Your task to perform on an android device: Add usb-a to the cart on newegg.com, then select checkout. Image 0: 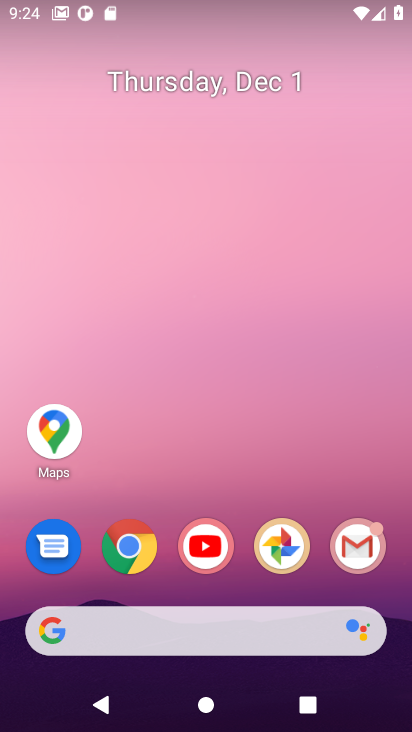
Step 0: click (128, 555)
Your task to perform on an android device: Add usb-a to the cart on newegg.com, then select checkout. Image 1: 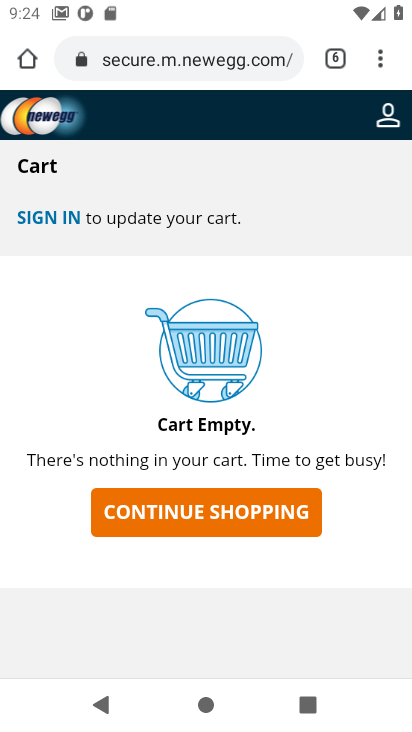
Step 1: click (193, 503)
Your task to perform on an android device: Add usb-a to the cart on newegg.com, then select checkout. Image 2: 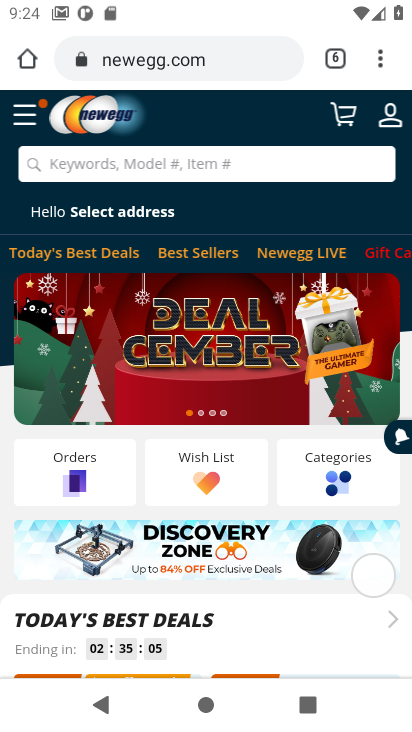
Step 2: click (121, 165)
Your task to perform on an android device: Add usb-a to the cart on newegg.com, then select checkout. Image 3: 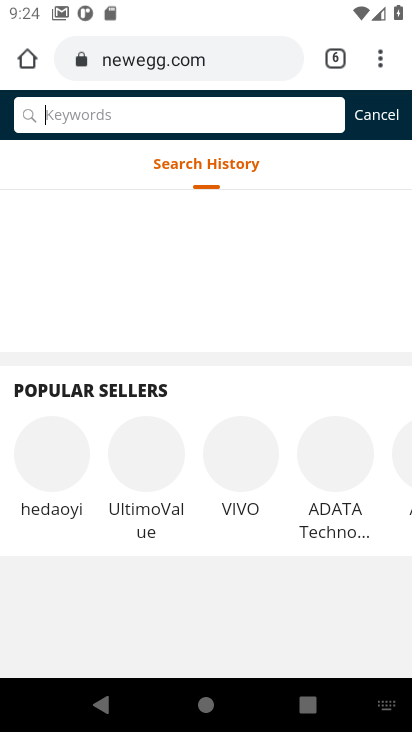
Step 3: type "usb-a "
Your task to perform on an android device: Add usb-a to the cart on newegg.com, then select checkout. Image 4: 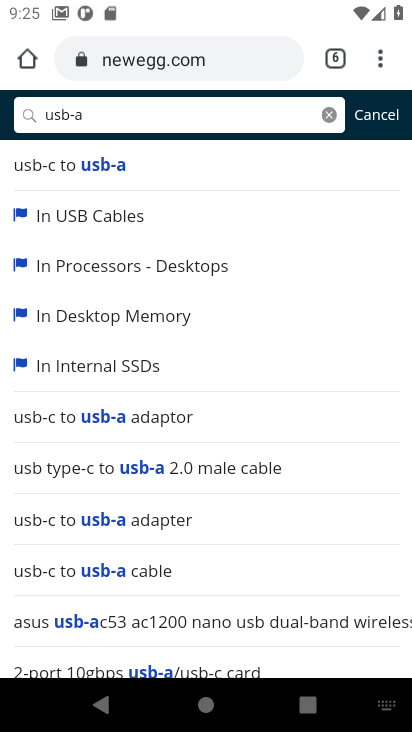
Step 4: drag from (108, 428) to (109, 191)
Your task to perform on an android device: Add usb-a to the cart on newegg.com, then select checkout. Image 5: 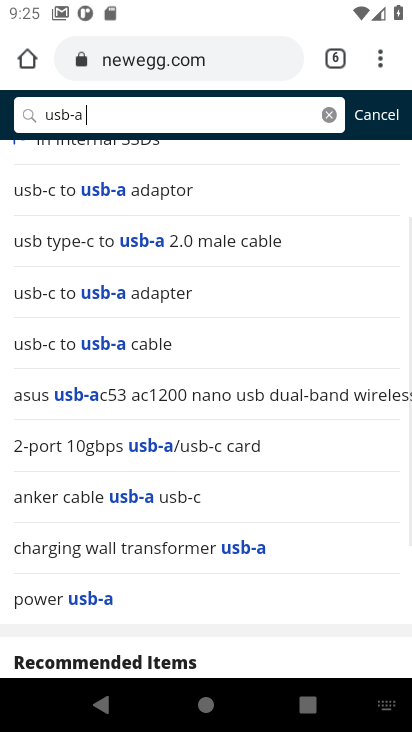
Step 5: drag from (113, 558) to (86, 204)
Your task to perform on an android device: Add usb-a to the cart on newegg.com, then select checkout. Image 6: 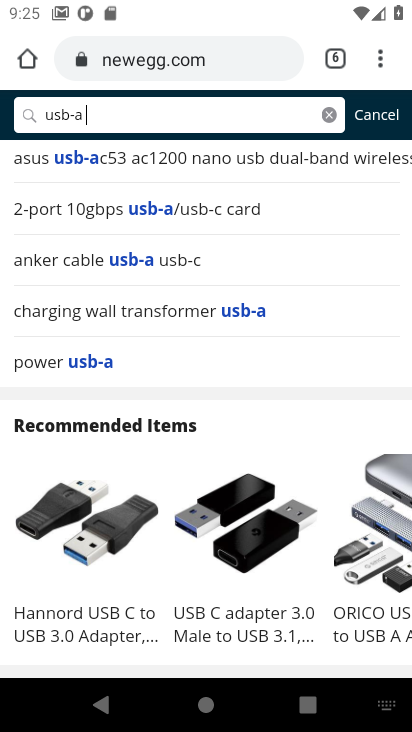
Step 6: click (63, 366)
Your task to perform on an android device: Add usb-a to the cart on newegg.com, then select checkout. Image 7: 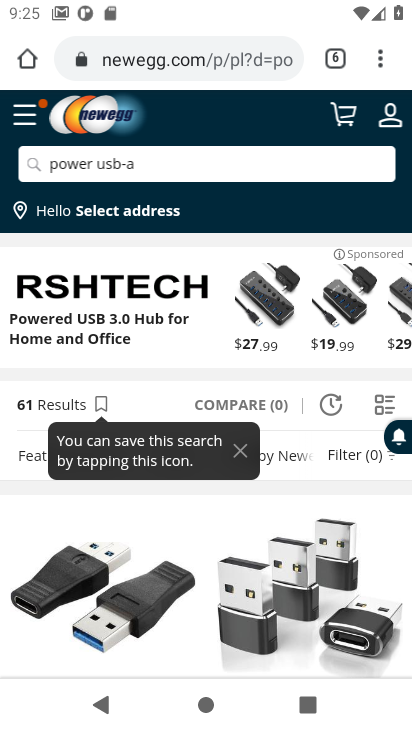
Step 7: drag from (128, 497) to (113, 284)
Your task to perform on an android device: Add usb-a to the cart on newegg.com, then select checkout. Image 8: 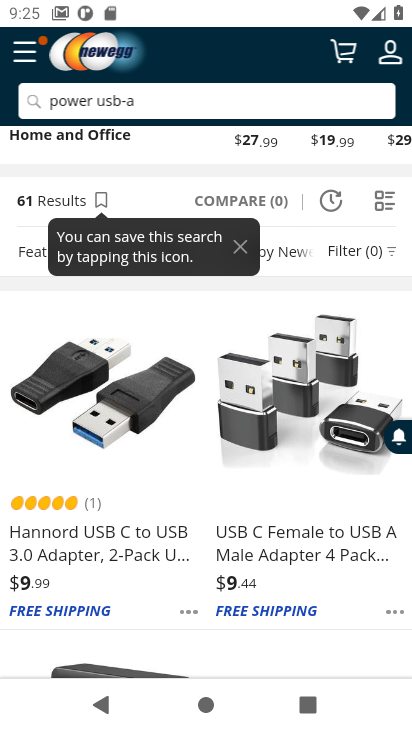
Step 8: click (321, 460)
Your task to perform on an android device: Add usb-a to the cart on newegg.com, then select checkout. Image 9: 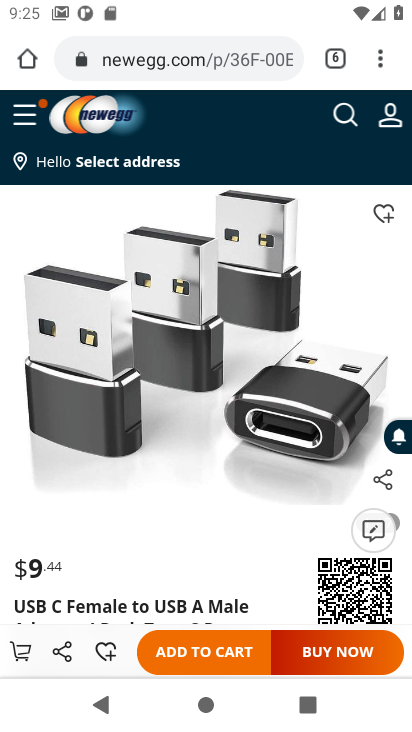
Step 9: click (198, 651)
Your task to perform on an android device: Add usb-a to the cart on newegg.com, then select checkout. Image 10: 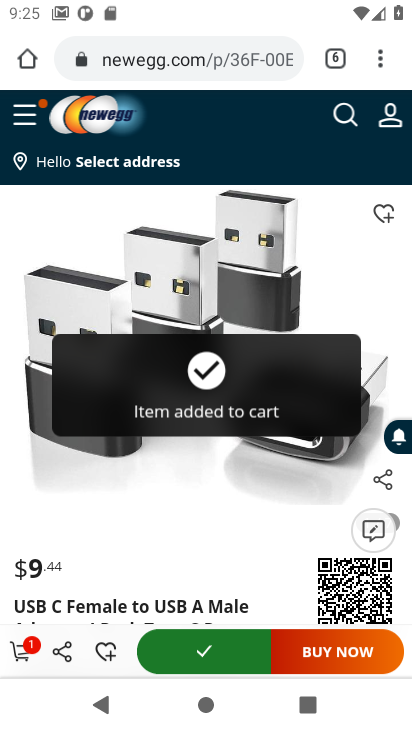
Step 10: click (25, 650)
Your task to perform on an android device: Add usb-a to the cart on newegg.com, then select checkout. Image 11: 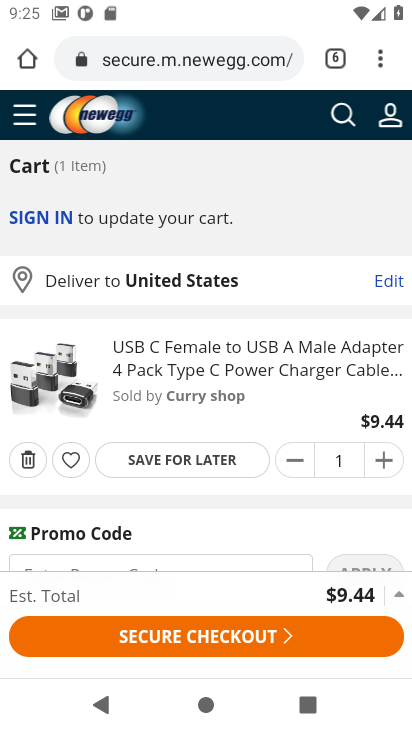
Step 11: click (128, 639)
Your task to perform on an android device: Add usb-a to the cart on newegg.com, then select checkout. Image 12: 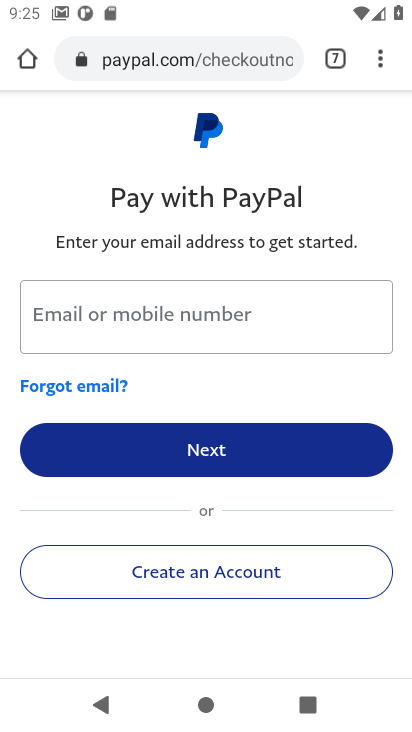
Step 12: task complete